Your task to perform on an android device: Open Google Maps Image 0: 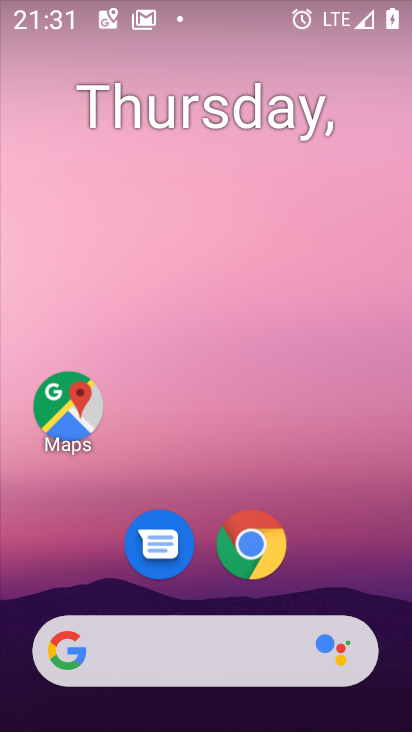
Step 0: click (70, 414)
Your task to perform on an android device: Open Google Maps Image 1: 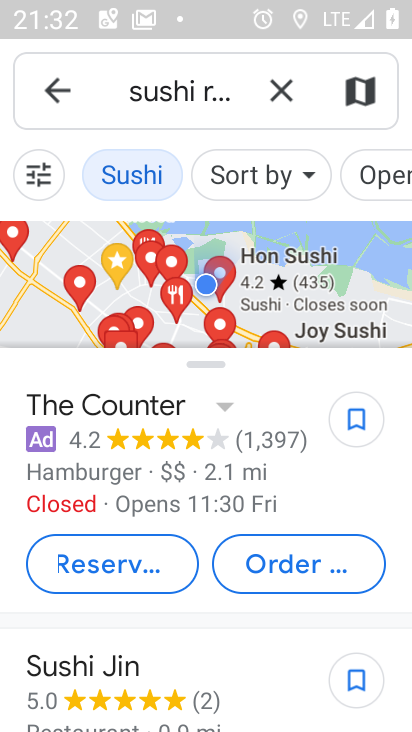
Step 1: task complete